Your task to perform on an android device: Open Maps and search for coffee Image 0: 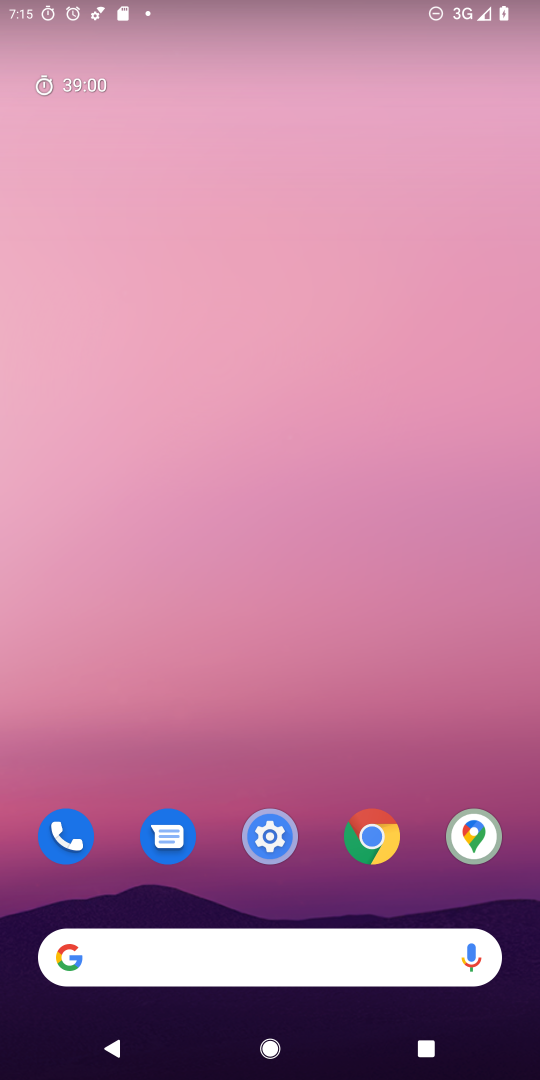
Step 0: drag from (328, 889) to (354, 266)
Your task to perform on an android device: Open Maps and search for coffee Image 1: 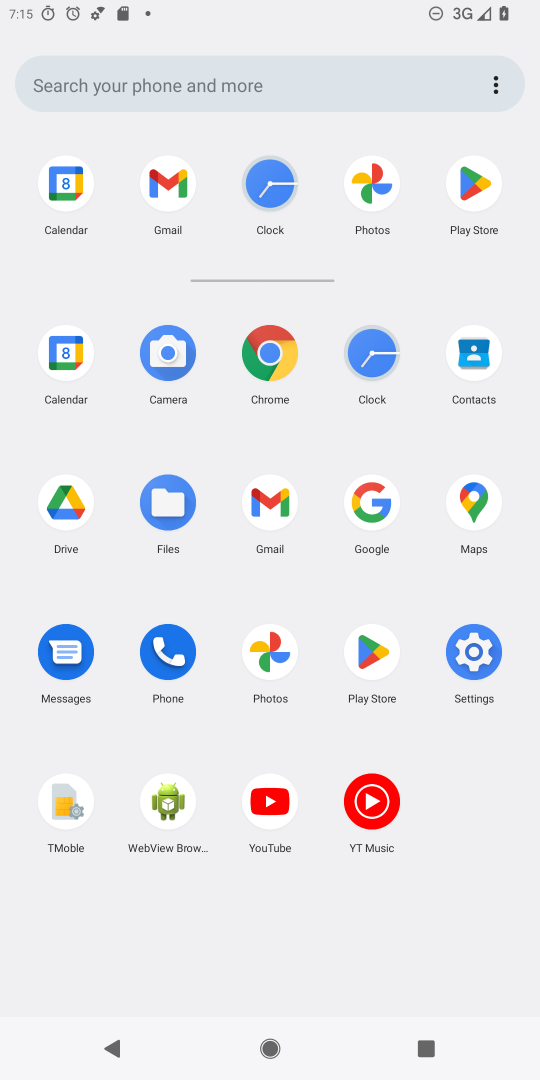
Step 1: click (477, 521)
Your task to perform on an android device: Open Maps and search for coffee Image 2: 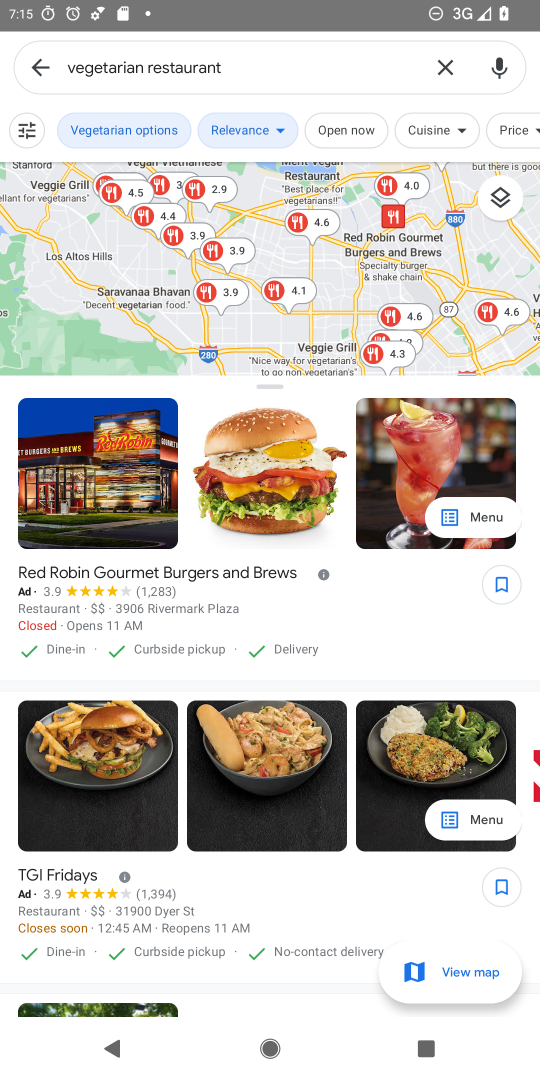
Step 2: click (440, 69)
Your task to perform on an android device: Open Maps and search for coffee Image 3: 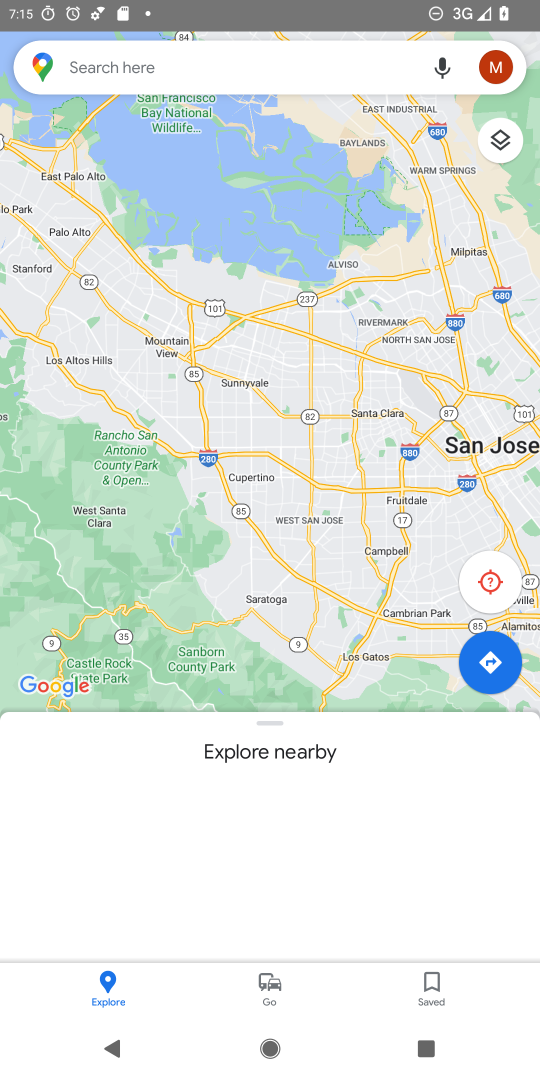
Step 3: click (140, 85)
Your task to perform on an android device: Open Maps and search for coffee Image 4: 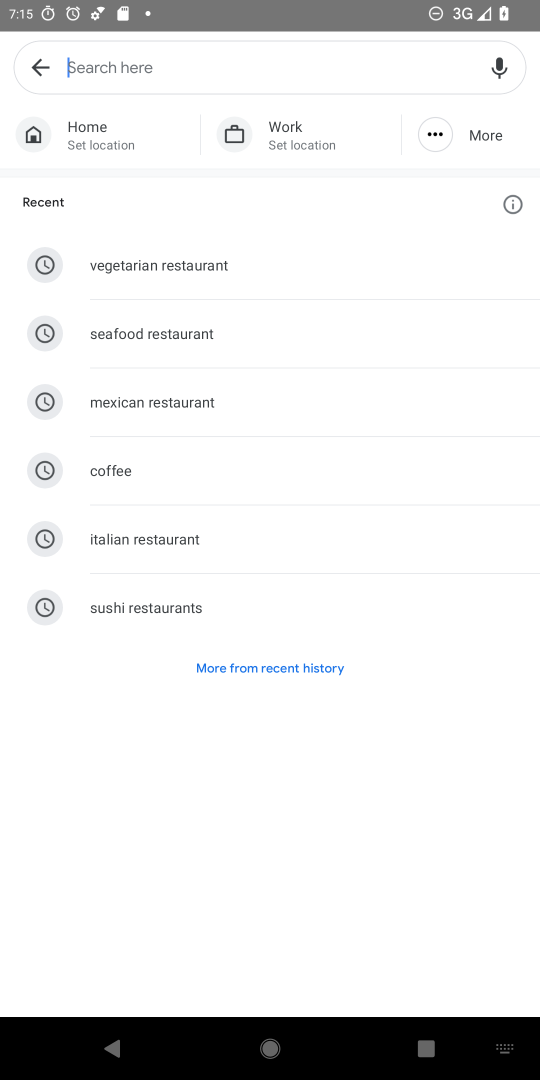
Step 4: click (150, 486)
Your task to perform on an android device: Open Maps and search for coffee Image 5: 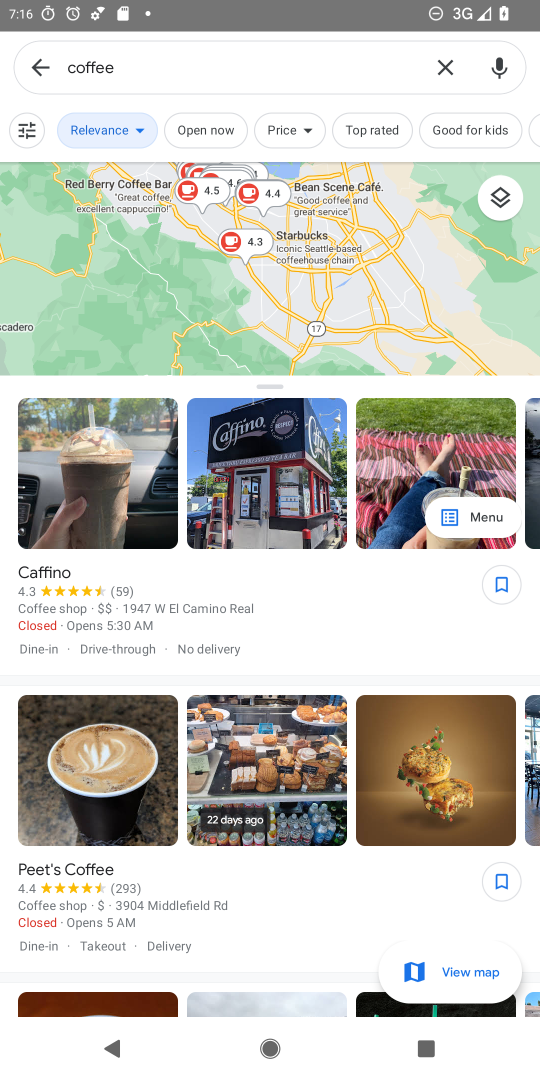
Step 5: task complete